Your task to perform on an android device: Open maps Image 0: 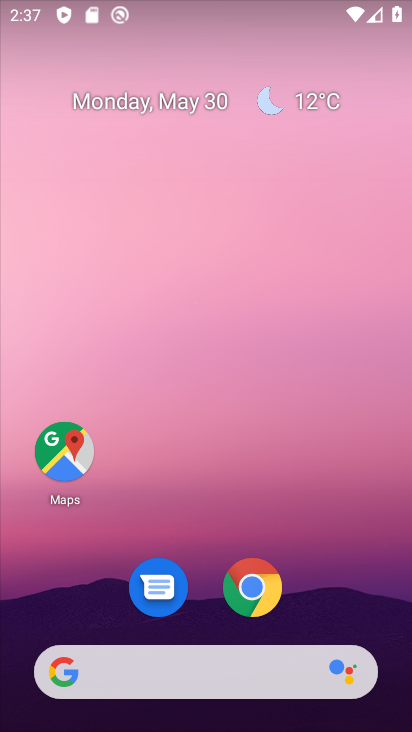
Step 0: click (64, 445)
Your task to perform on an android device: Open maps Image 1: 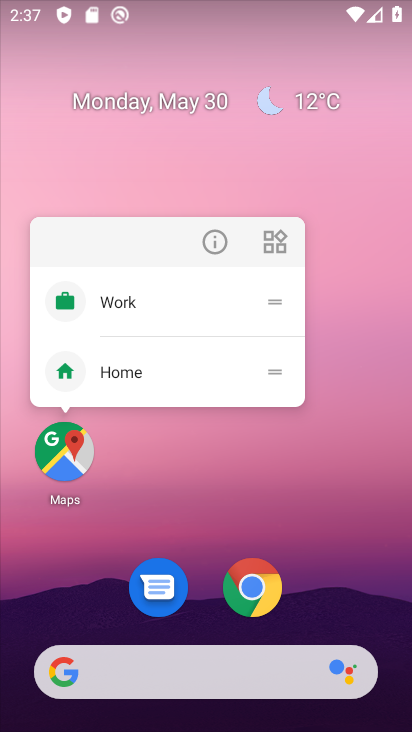
Step 1: click (63, 453)
Your task to perform on an android device: Open maps Image 2: 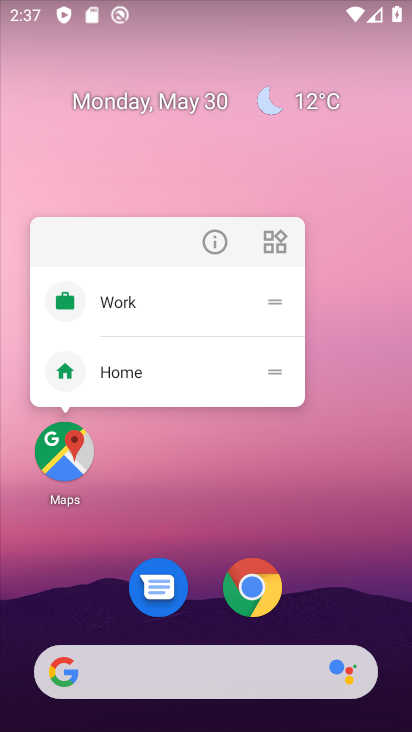
Step 2: click (58, 452)
Your task to perform on an android device: Open maps Image 3: 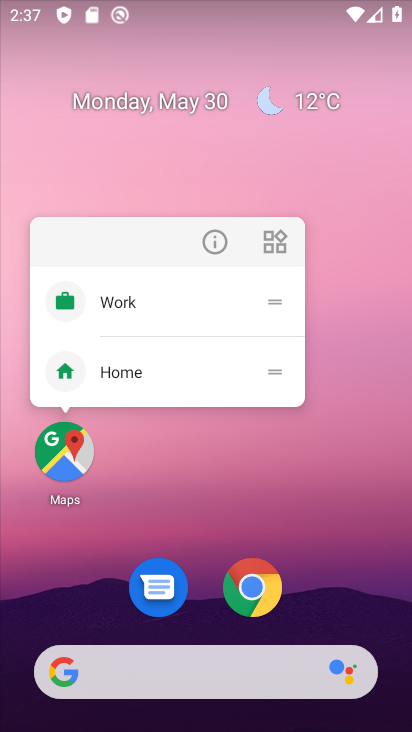
Step 3: click (59, 450)
Your task to perform on an android device: Open maps Image 4: 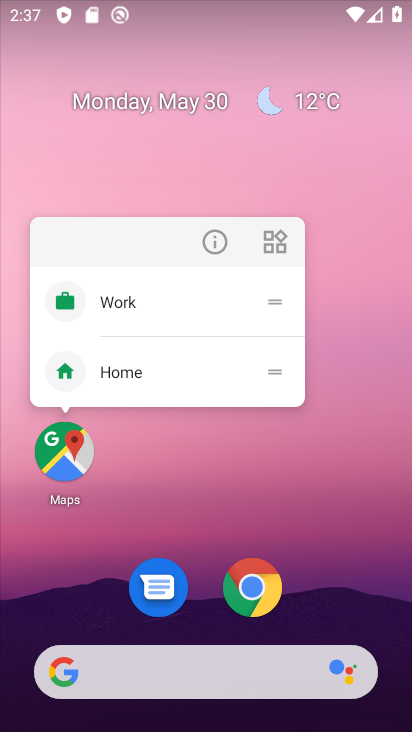
Step 4: click (208, 245)
Your task to perform on an android device: Open maps Image 5: 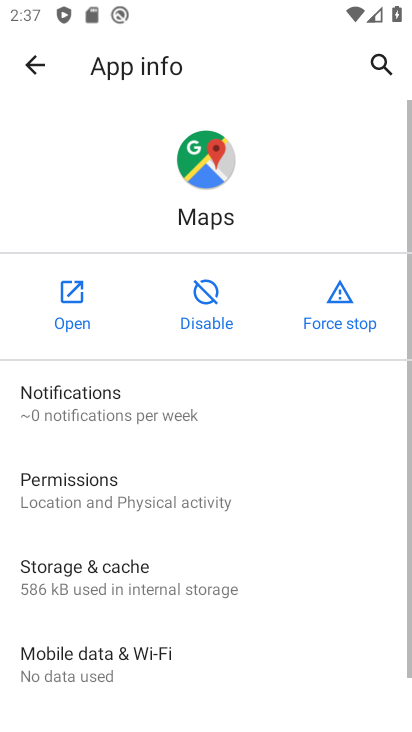
Step 5: click (83, 311)
Your task to perform on an android device: Open maps Image 6: 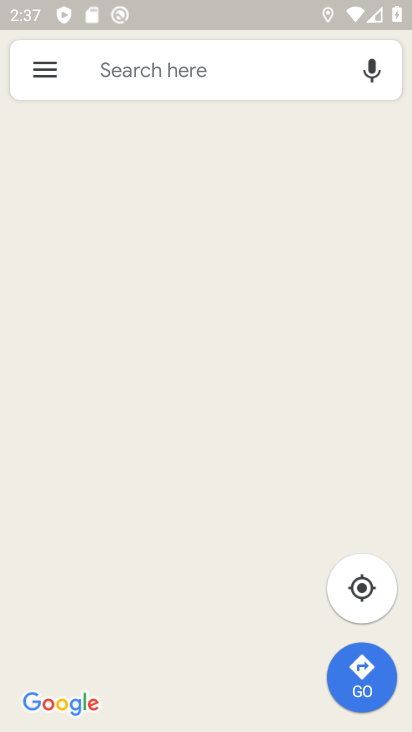
Step 6: task complete